Your task to perform on an android device: Set the phone to "Do not disturb". Image 0: 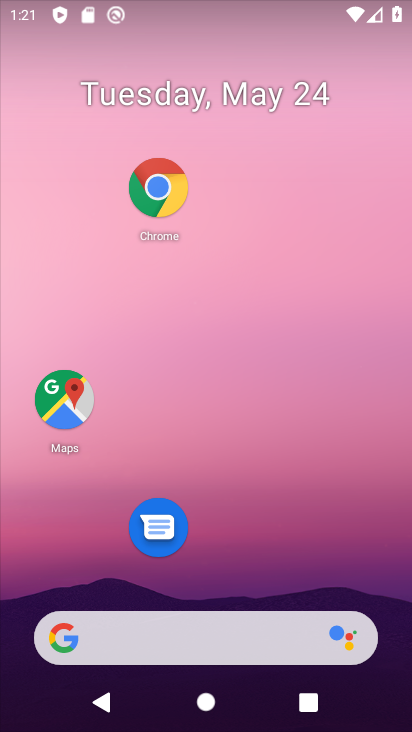
Step 0: click (180, 48)
Your task to perform on an android device: Set the phone to "Do not disturb". Image 1: 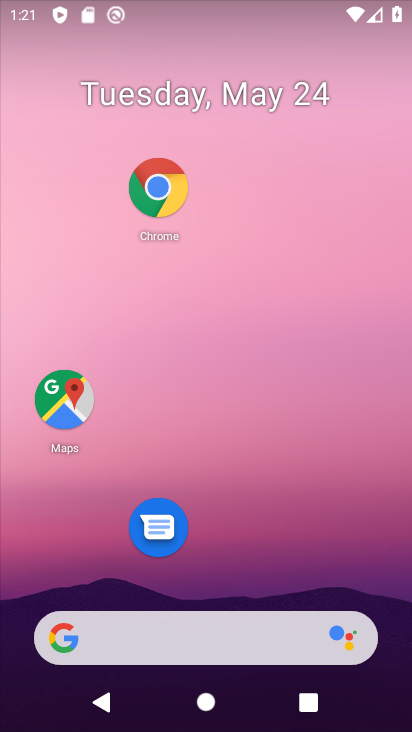
Step 1: drag from (204, 483) to (175, 56)
Your task to perform on an android device: Set the phone to "Do not disturb". Image 2: 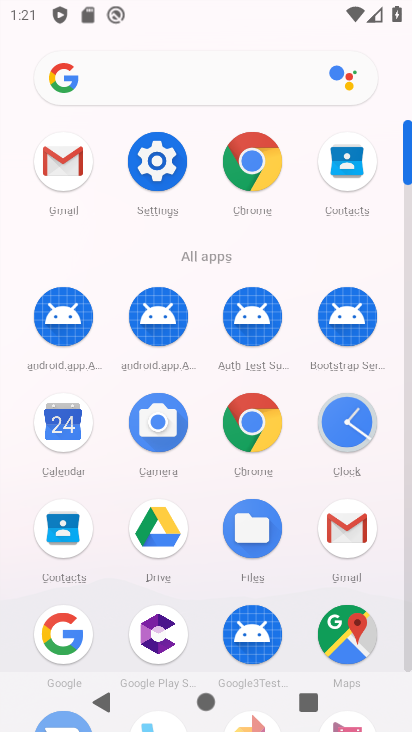
Step 2: click (155, 171)
Your task to perform on an android device: Set the phone to "Do not disturb". Image 3: 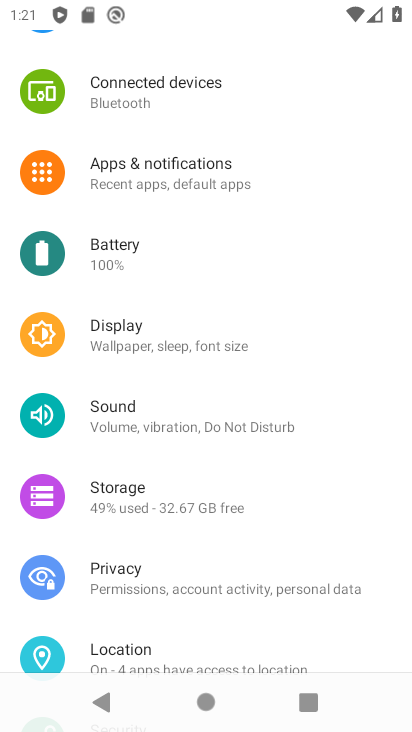
Step 3: click (145, 429)
Your task to perform on an android device: Set the phone to "Do not disturb". Image 4: 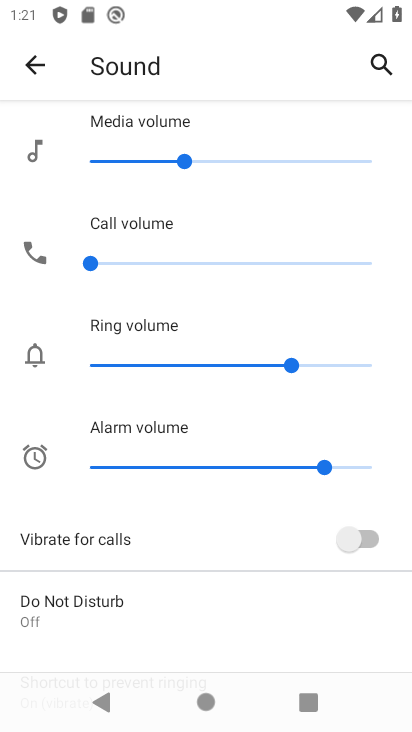
Step 4: click (90, 615)
Your task to perform on an android device: Set the phone to "Do not disturb". Image 5: 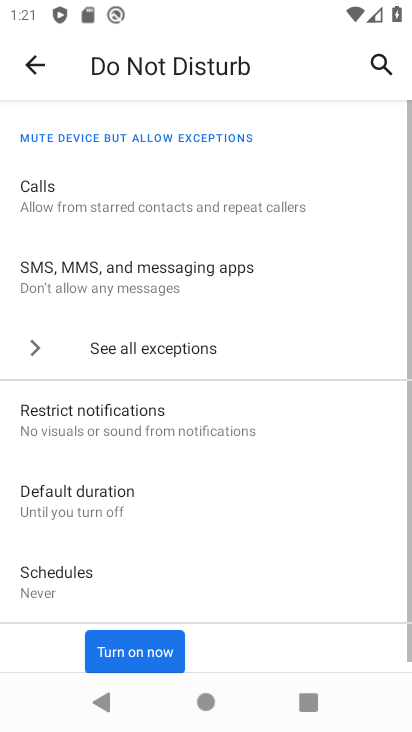
Step 5: click (118, 664)
Your task to perform on an android device: Set the phone to "Do not disturb". Image 6: 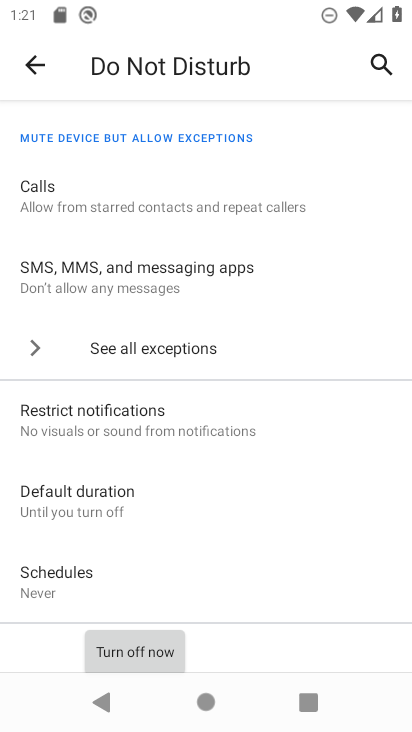
Step 6: task complete